Your task to perform on an android device: turn on data saver in the chrome app Image 0: 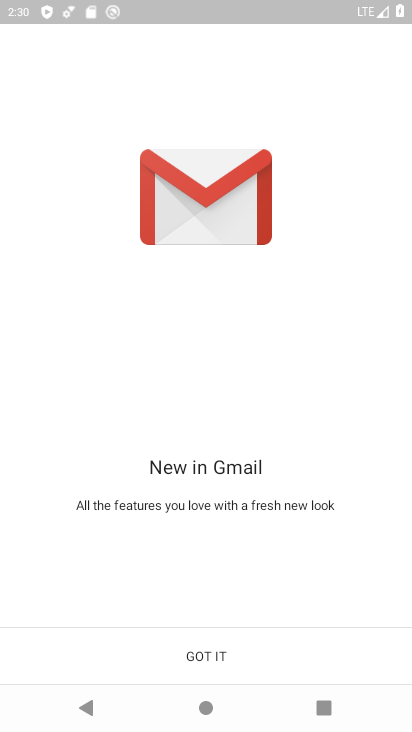
Step 0: click (221, 665)
Your task to perform on an android device: turn on data saver in the chrome app Image 1: 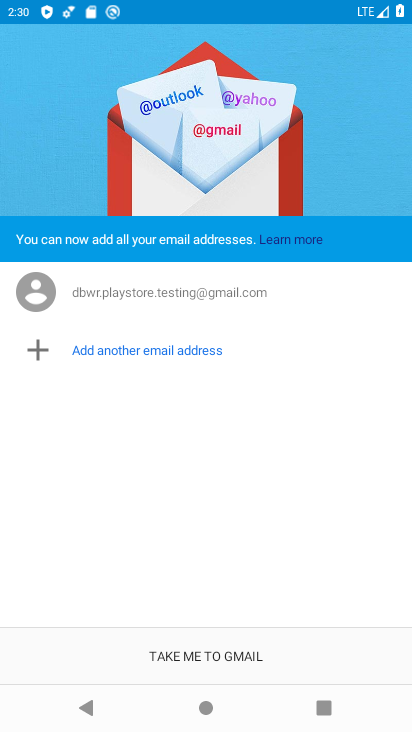
Step 1: press home button
Your task to perform on an android device: turn on data saver in the chrome app Image 2: 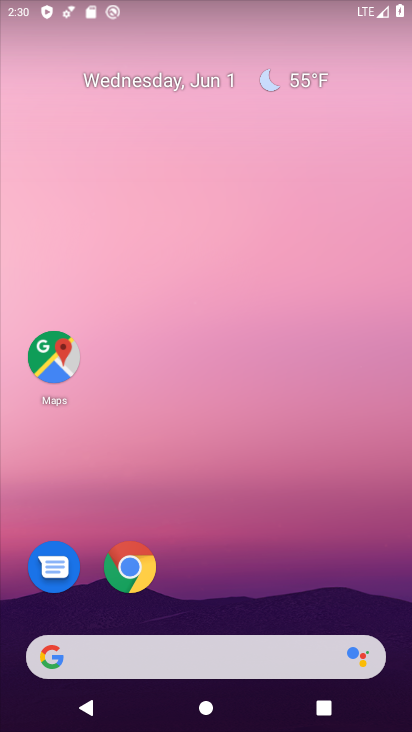
Step 2: click (135, 572)
Your task to perform on an android device: turn on data saver in the chrome app Image 3: 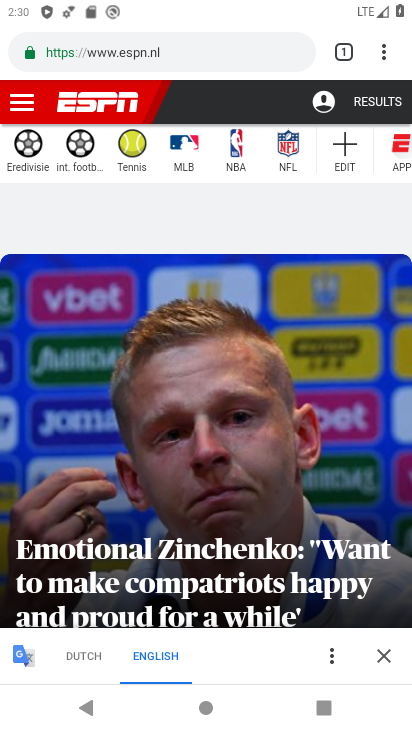
Step 3: click (392, 45)
Your task to perform on an android device: turn on data saver in the chrome app Image 4: 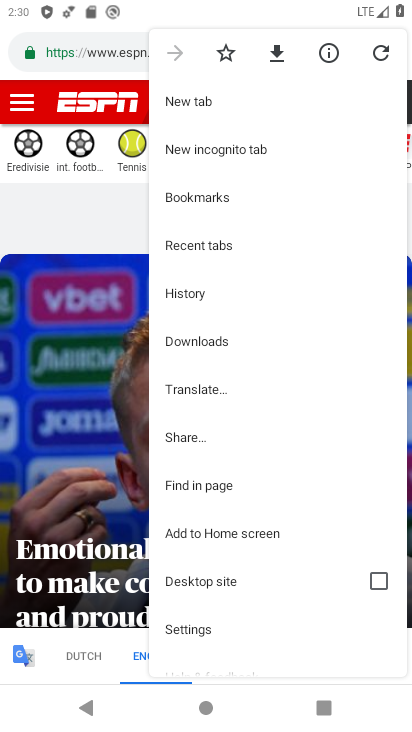
Step 4: click (192, 634)
Your task to perform on an android device: turn on data saver in the chrome app Image 5: 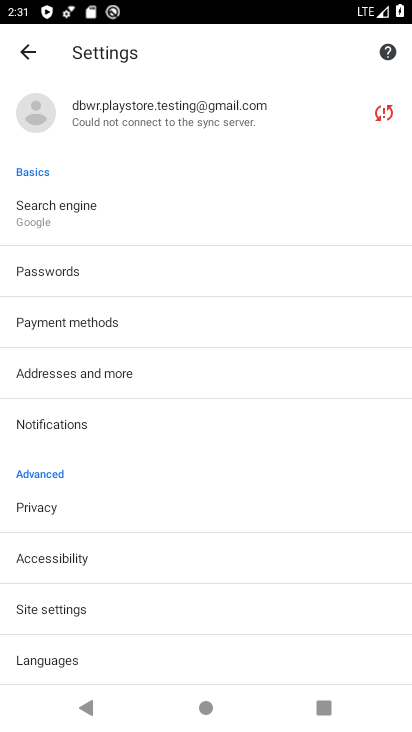
Step 5: drag from (122, 620) to (117, 222)
Your task to perform on an android device: turn on data saver in the chrome app Image 6: 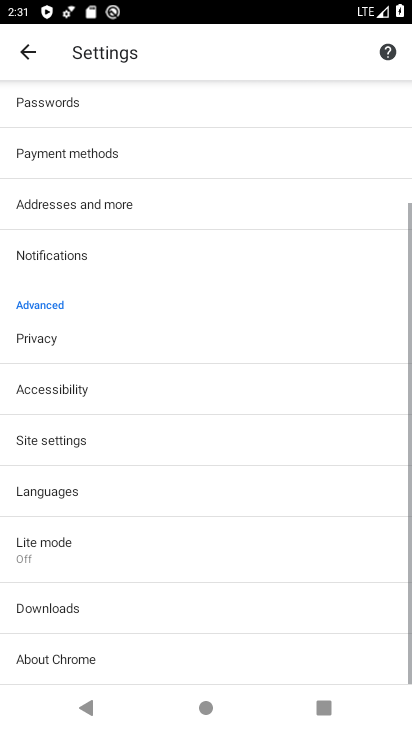
Step 6: click (70, 541)
Your task to perform on an android device: turn on data saver in the chrome app Image 7: 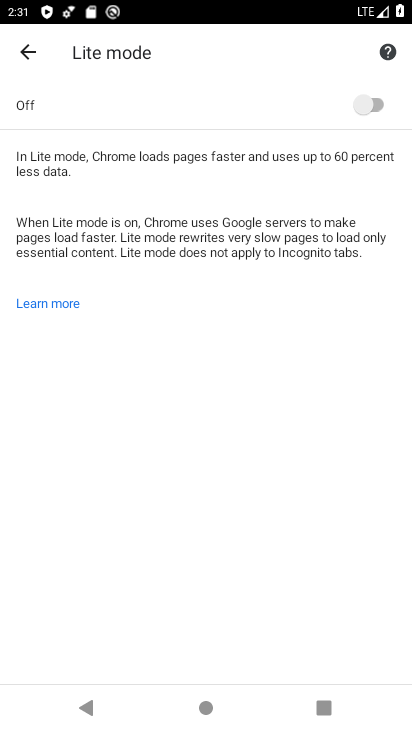
Step 7: click (370, 102)
Your task to perform on an android device: turn on data saver in the chrome app Image 8: 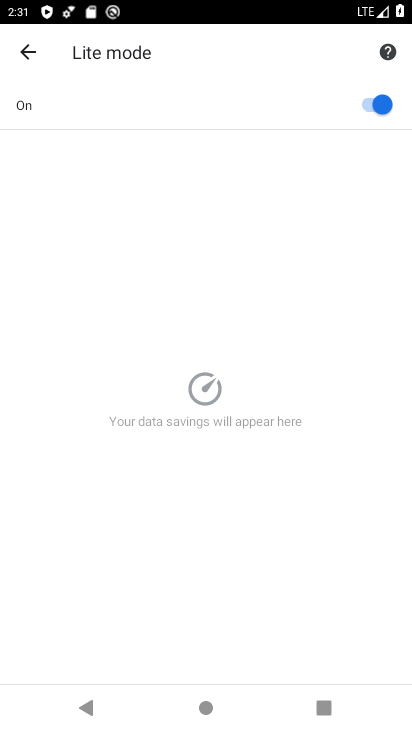
Step 8: task complete